Your task to perform on an android device: Open wifi settings Image 0: 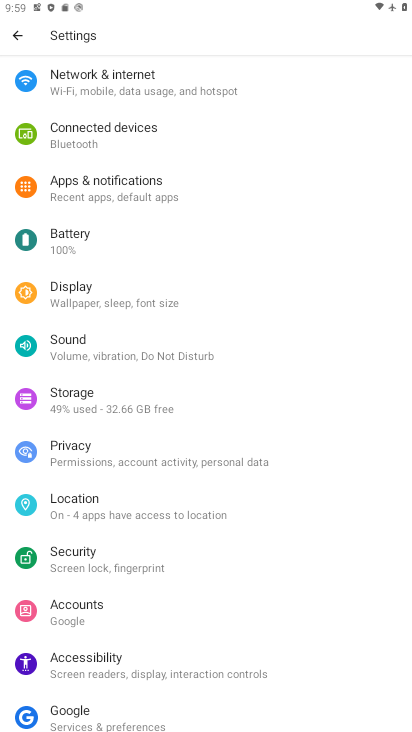
Step 0: drag from (174, 104) to (180, 514)
Your task to perform on an android device: Open wifi settings Image 1: 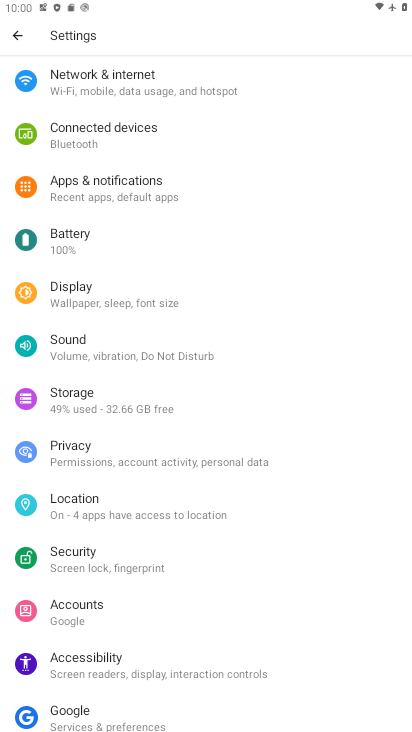
Step 1: click (103, 86)
Your task to perform on an android device: Open wifi settings Image 2: 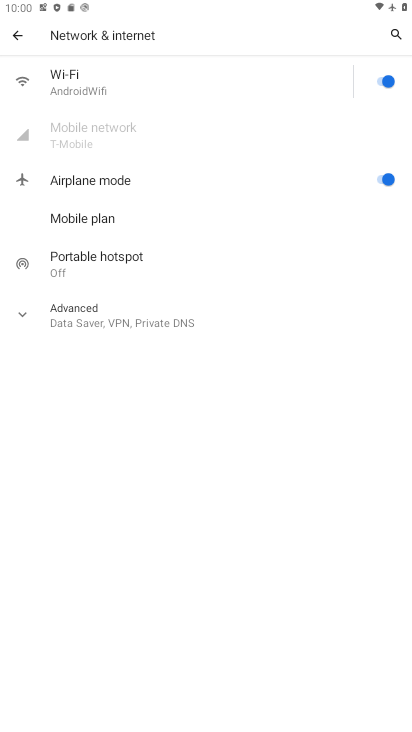
Step 2: click (81, 77)
Your task to perform on an android device: Open wifi settings Image 3: 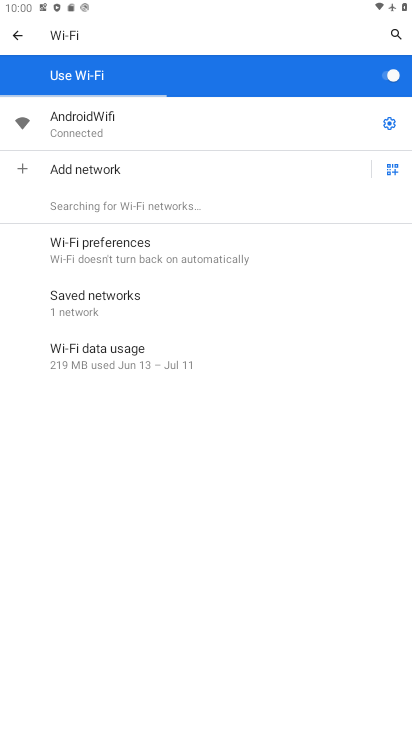
Step 3: task complete